Your task to perform on an android device: Open notification settings Image 0: 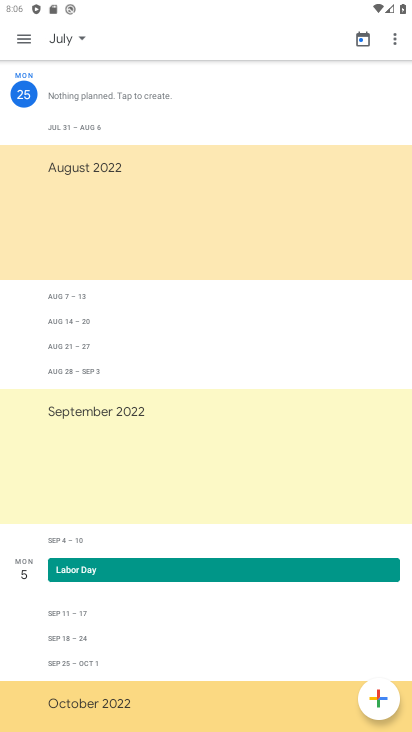
Step 0: press home button
Your task to perform on an android device: Open notification settings Image 1: 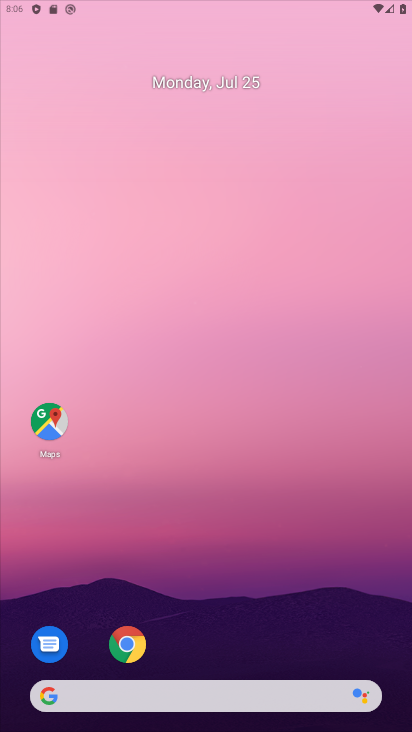
Step 1: drag from (209, 674) to (212, 34)
Your task to perform on an android device: Open notification settings Image 2: 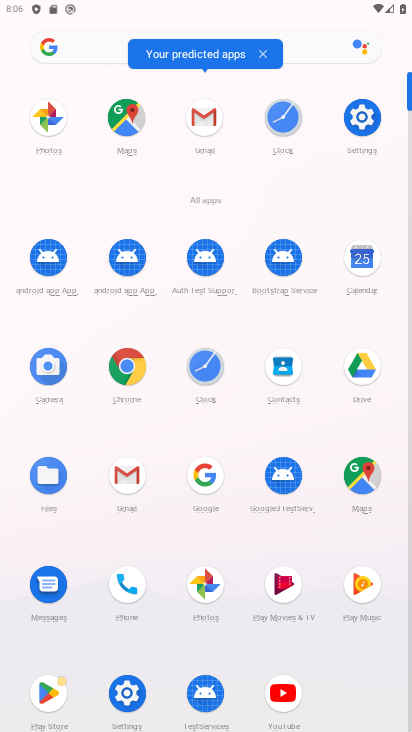
Step 2: click (354, 115)
Your task to perform on an android device: Open notification settings Image 3: 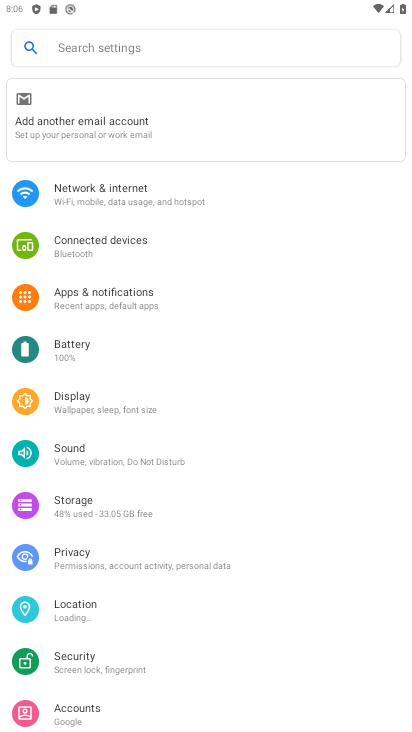
Step 3: click (136, 295)
Your task to perform on an android device: Open notification settings Image 4: 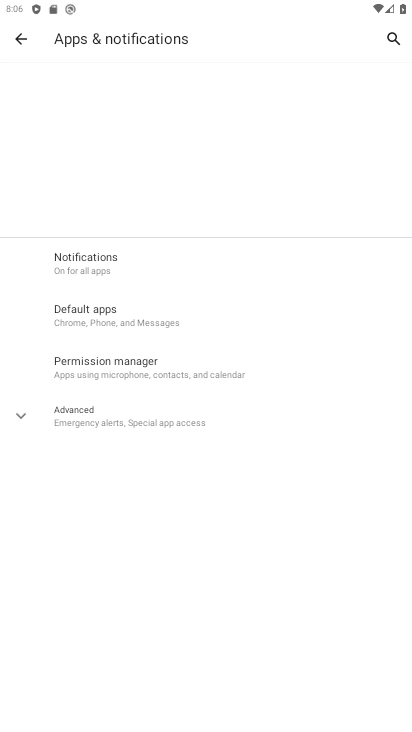
Step 4: task complete